Your task to perform on an android device: open app "Instagram" Image 0: 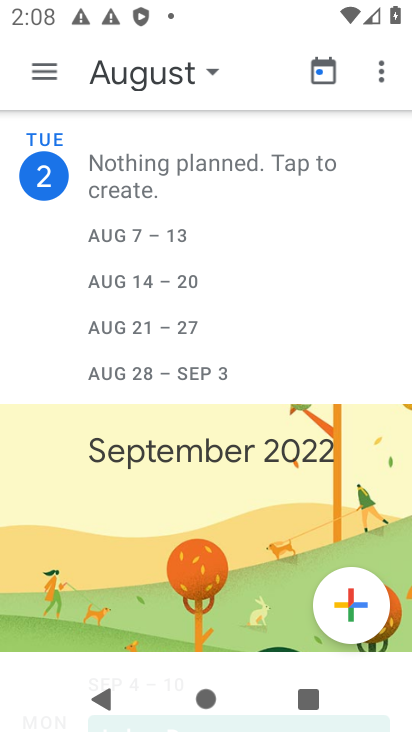
Step 0: press home button
Your task to perform on an android device: open app "Instagram" Image 1: 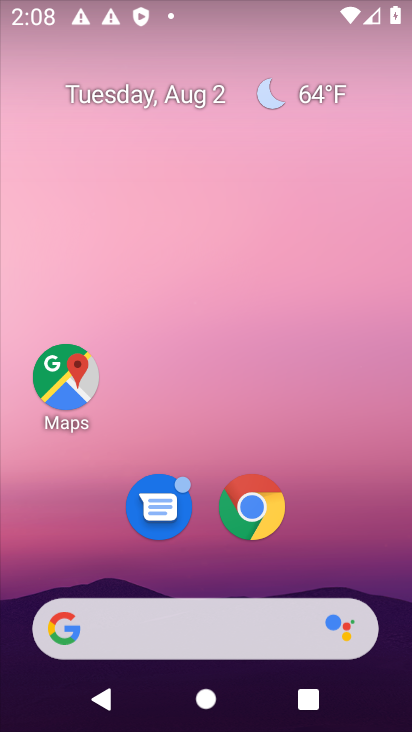
Step 1: drag from (181, 530) to (180, 50)
Your task to perform on an android device: open app "Instagram" Image 2: 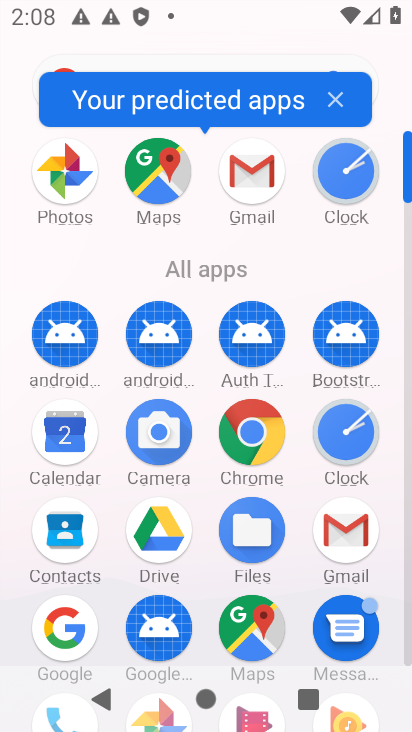
Step 2: drag from (217, 499) to (228, 15)
Your task to perform on an android device: open app "Instagram" Image 3: 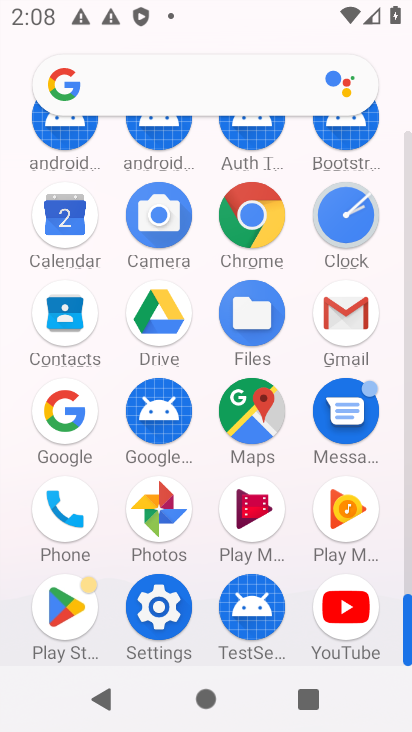
Step 3: click (53, 607)
Your task to perform on an android device: open app "Instagram" Image 4: 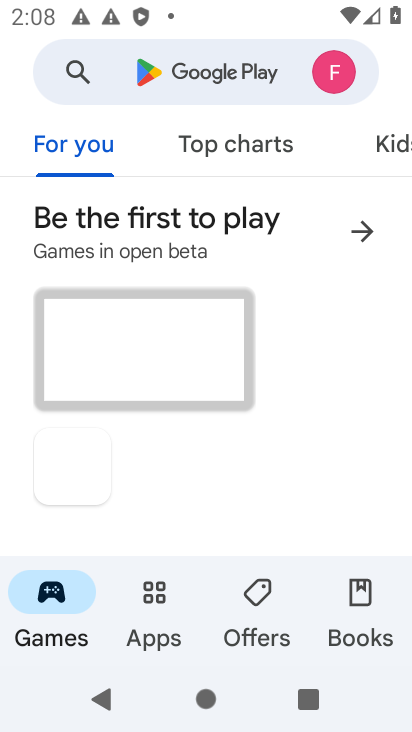
Step 4: click (203, 70)
Your task to perform on an android device: open app "Instagram" Image 5: 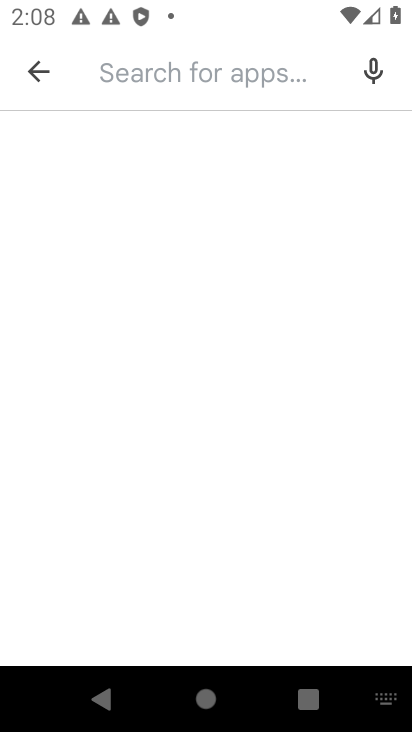
Step 5: type "instagram"
Your task to perform on an android device: open app "Instagram" Image 6: 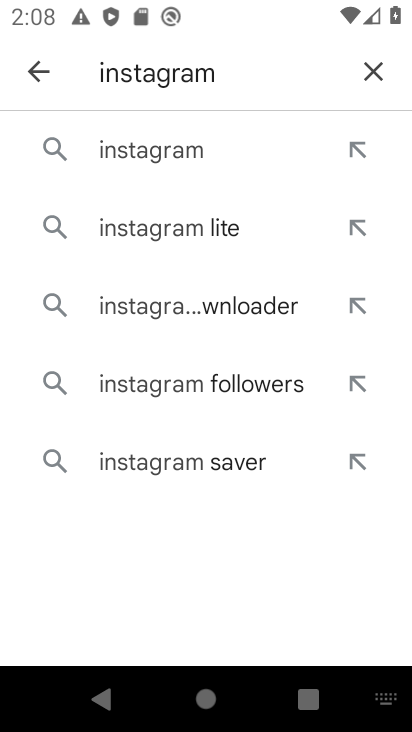
Step 6: click (183, 142)
Your task to perform on an android device: open app "Instagram" Image 7: 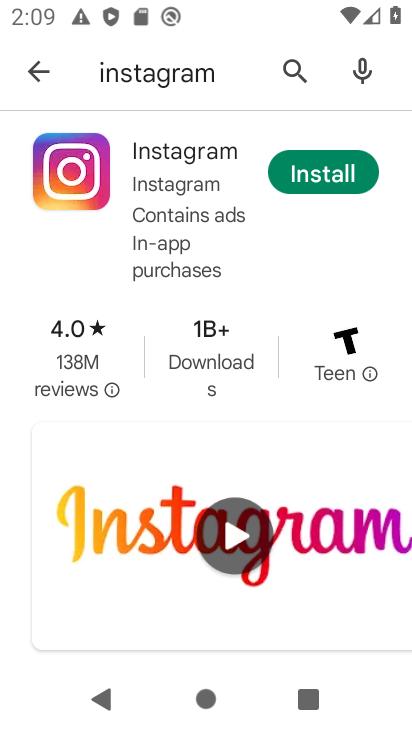
Step 7: task complete